Your task to perform on an android device: delete browsing data in the chrome app Image 0: 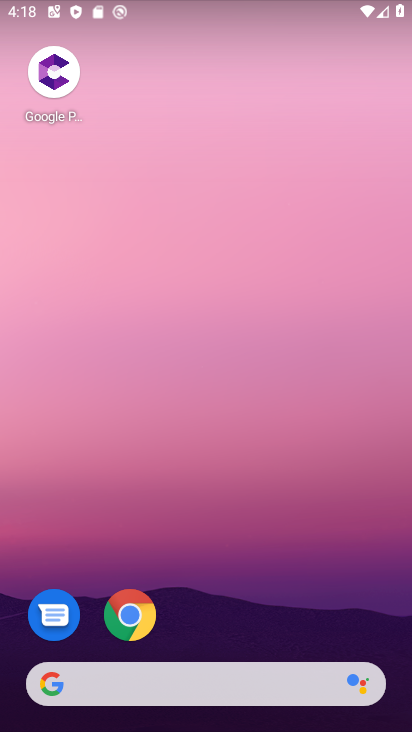
Step 0: click (138, 602)
Your task to perform on an android device: delete browsing data in the chrome app Image 1: 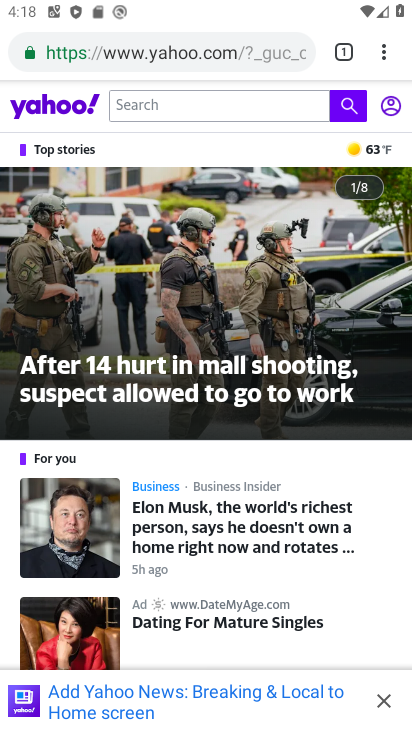
Step 1: click (381, 56)
Your task to perform on an android device: delete browsing data in the chrome app Image 2: 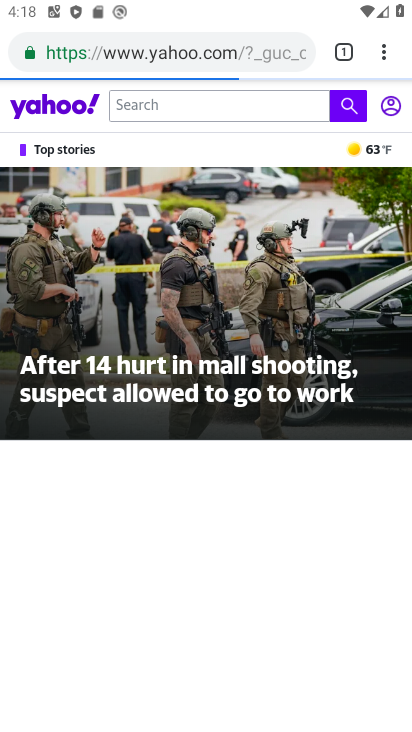
Step 2: click (381, 56)
Your task to perform on an android device: delete browsing data in the chrome app Image 3: 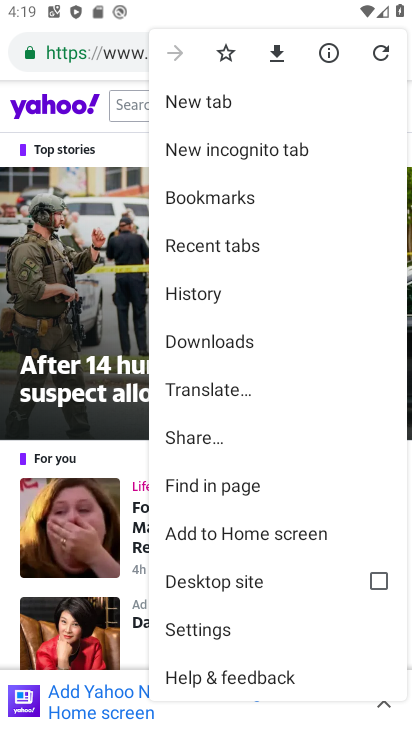
Step 3: click (220, 628)
Your task to perform on an android device: delete browsing data in the chrome app Image 4: 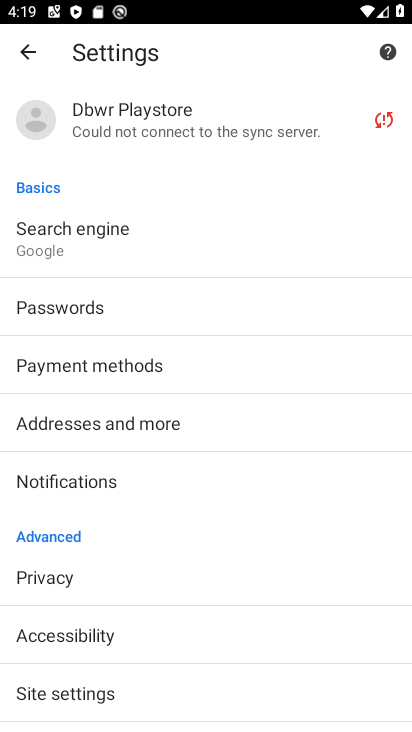
Step 4: click (56, 564)
Your task to perform on an android device: delete browsing data in the chrome app Image 5: 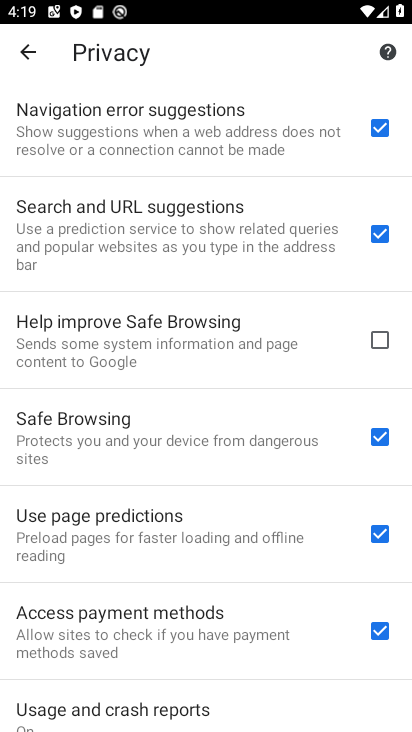
Step 5: drag from (121, 302) to (113, 155)
Your task to perform on an android device: delete browsing data in the chrome app Image 6: 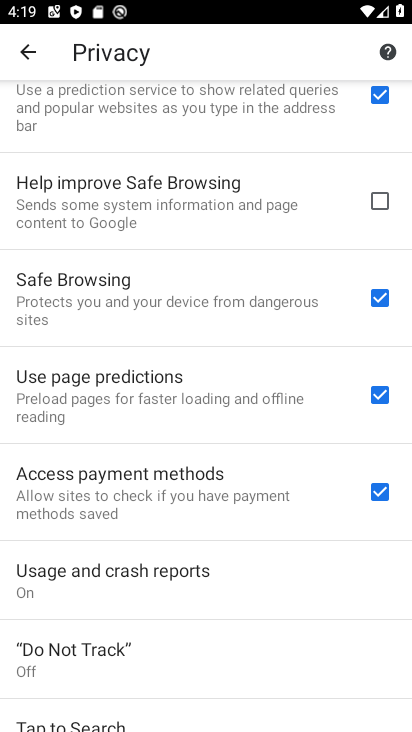
Step 6: drag from (121, 647) to (121, 15)
Your task to perform on an android device: delete browsing data in the chrome app Image 7: 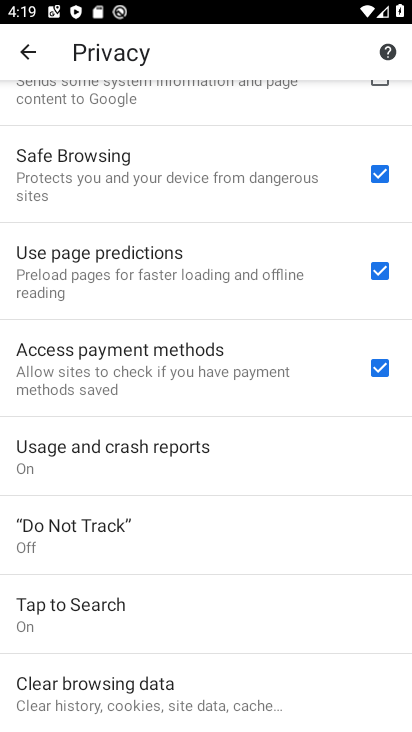
Step 7: click (121, 675)
Your task to perform on an android device: delete browsing data in the chrome app Image 8: 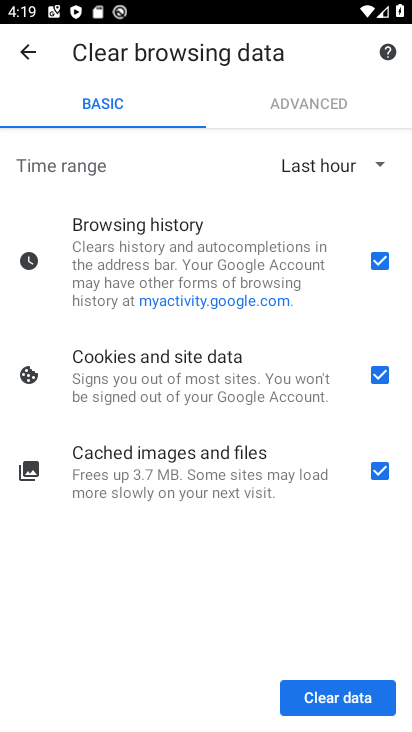
Step 8: click (387, 381)
Your task to perform on an android device: delete browsing data in the chrome app Image 9: 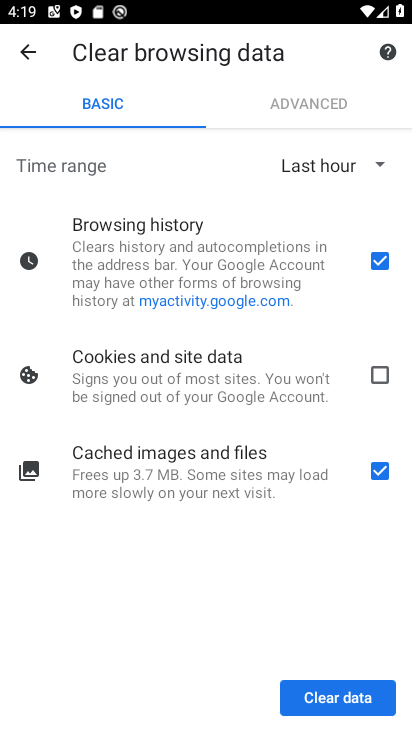
Step 9: click (380, 476)
Your task to perform on an android device: delete browsing data in the chrome app Image 10: 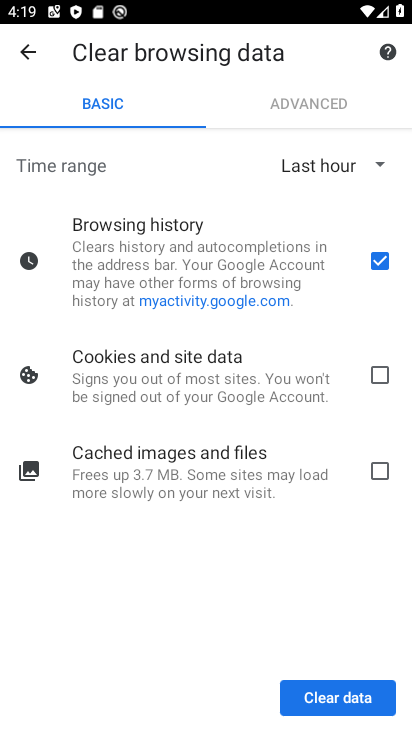
Step 10: click (347, 164)
Your task to perform on an android device: delete browsing data in the chrome app Image 11: 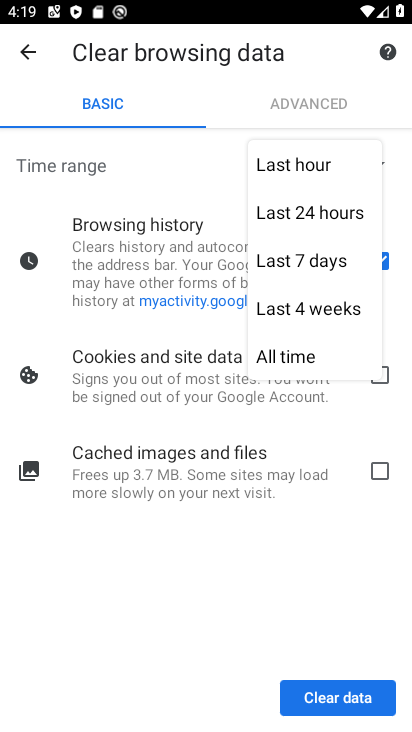
Step 11: click (312, 353)
Your task to perform on an android device: delete browsing data in the chrome app Image 12: 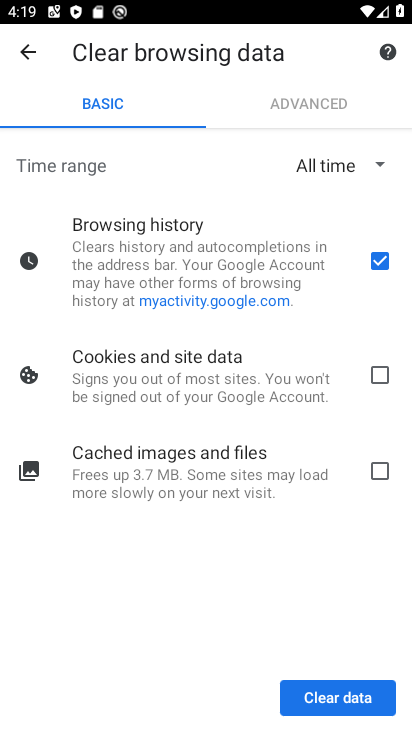
Step 12: click (355, 689)
Your task to perform on an android device: delete browsing data in the chrome app Image 13: 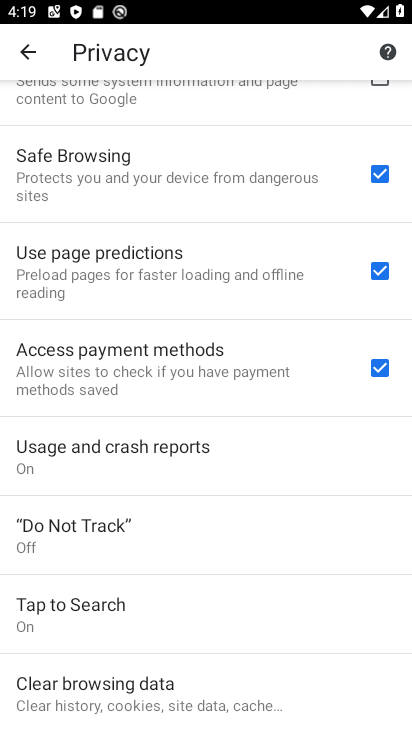
Step 13: task complete